Your task to perform on an android device: View the shopping cart on costco.com. Image 0: 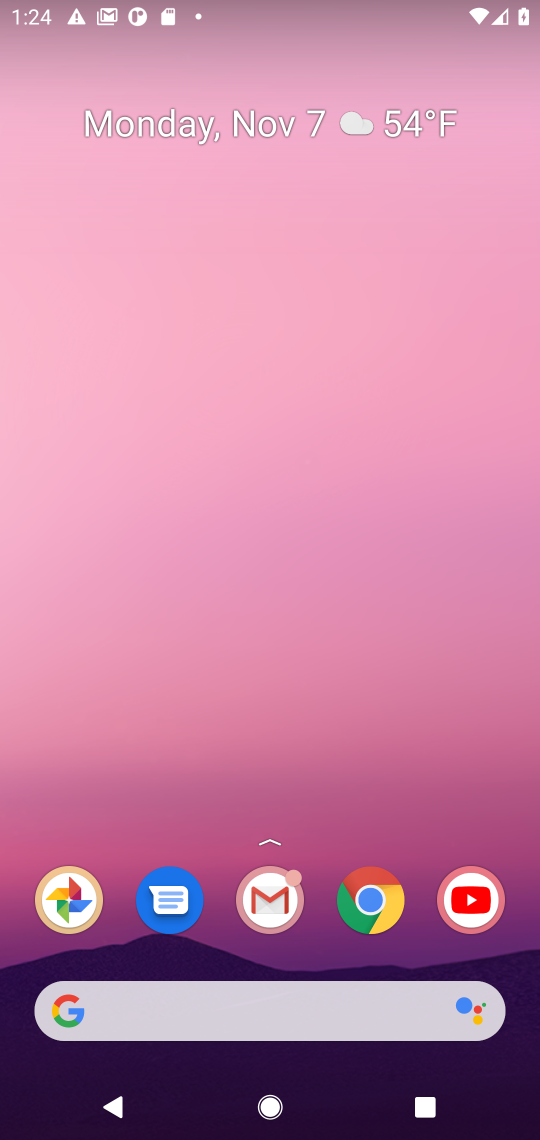
Step 0: click (304, 993)
Your task to perform on an android device: View the shopping cart on costco.com. Image 1: 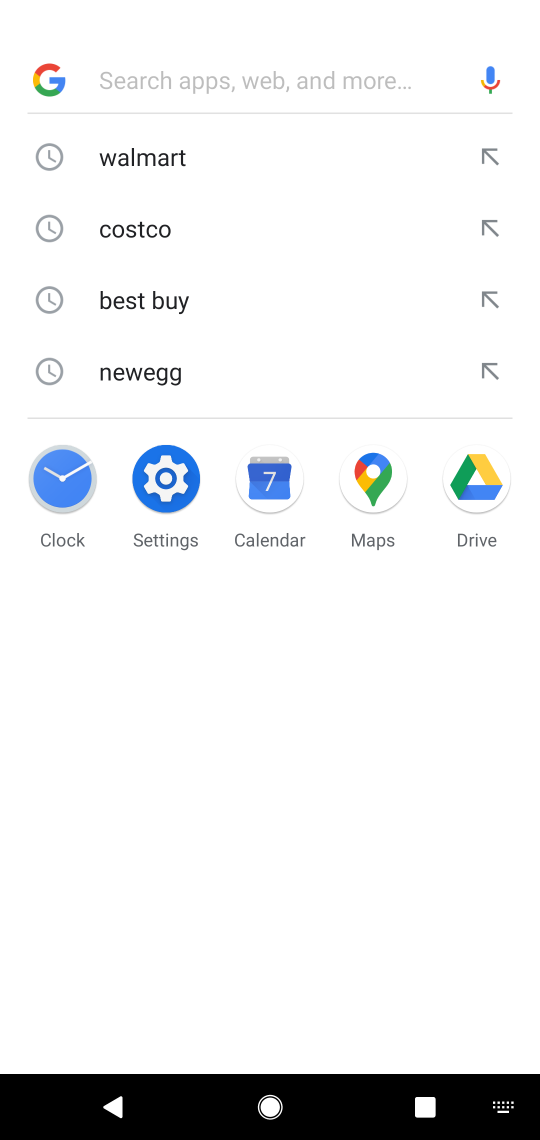
Step 1: click (198, 245)
Your task to perform on an android device: View the shopping cart on costco.com. Image 2: 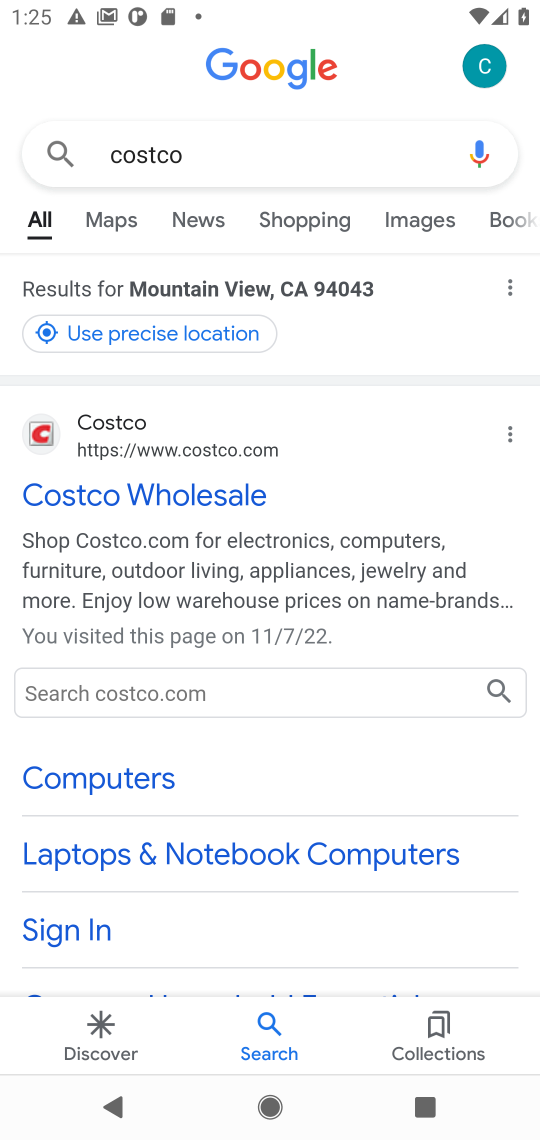
Step 2: click (125, 482)
Your task to perform on an android device: View the shopping cart on costco.com. Image 3: 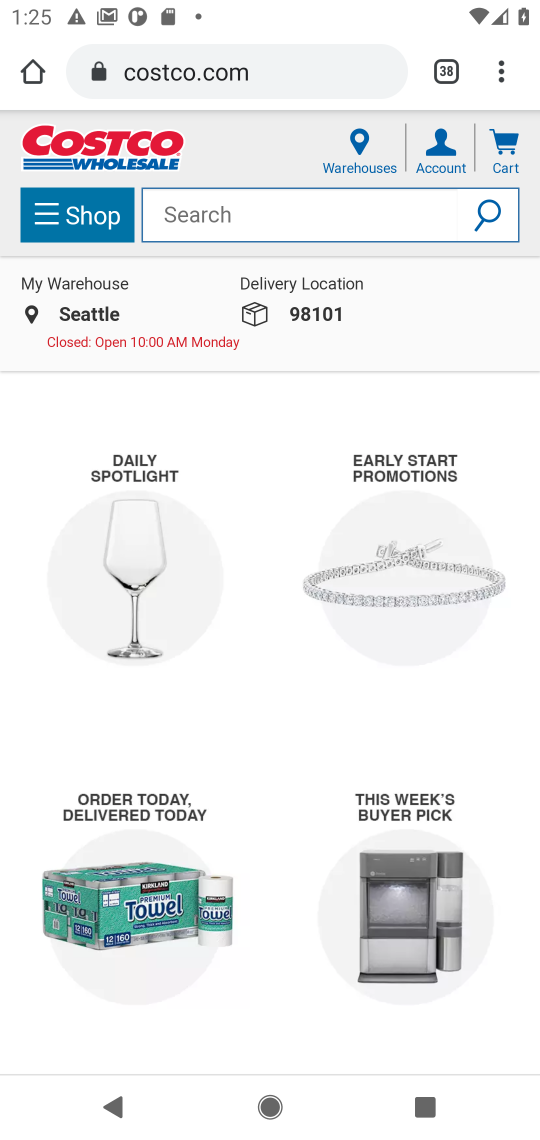
Step 3: task complete